Your task to perform on an android device: Go to Yahoo.com Image 0: 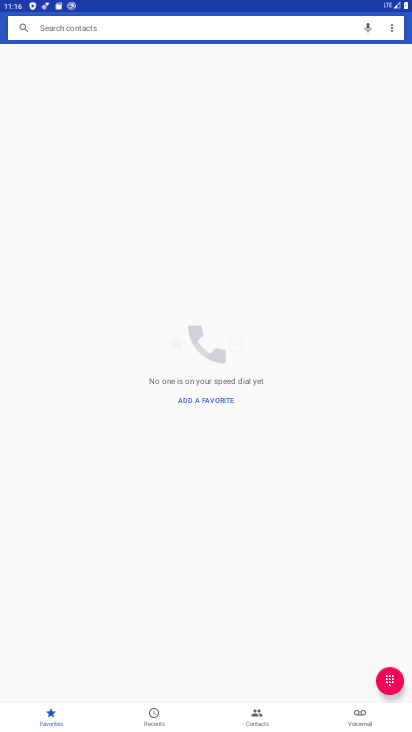
Step 0: press home button
Your task to perform on an android device: Go to Yahoo.com Image 1: 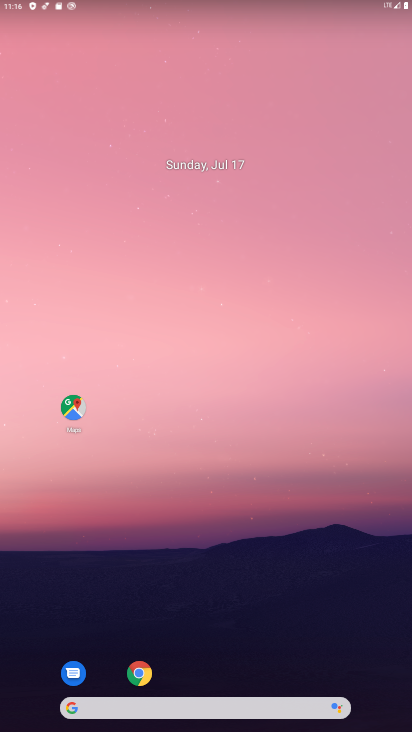
Step 1: click (139, 676)
Your task to perform on an android device: Go to Yahoo.com Image 2: 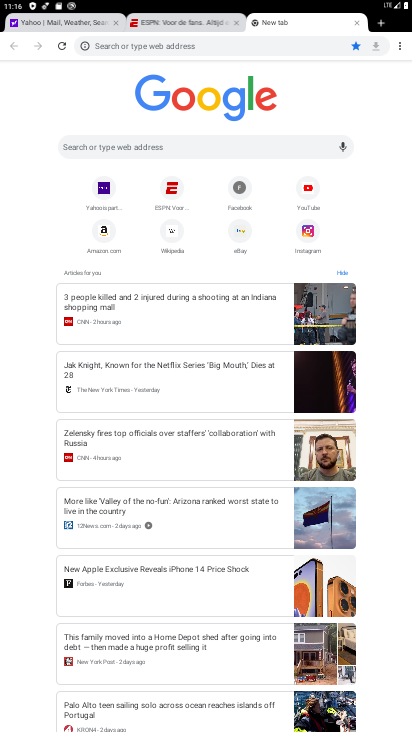
Step 2: click (102, 190)
Your task to perform on an android device: Go to Yahoo.com Image 3: 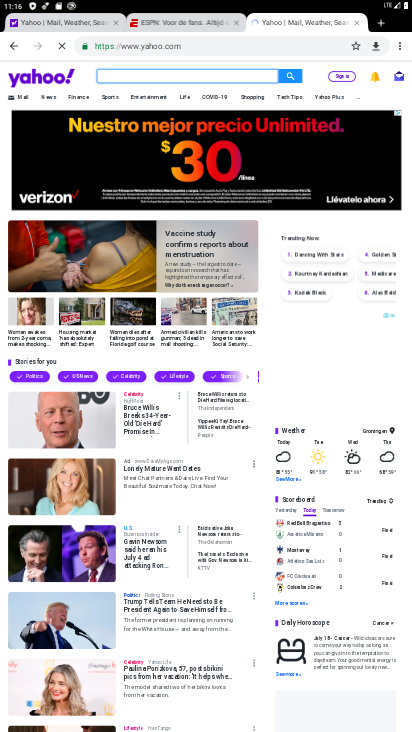
Step 3: task complete